Your task to perform on an android device: turn off data saver in the chrome app Image 0: 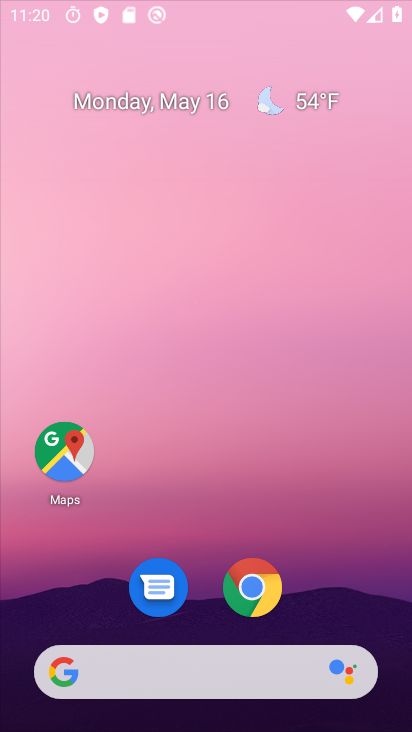
Step 0: click (275, 115)
Your task to perform on an android device: turn off data saver in the chrome app Image 1: 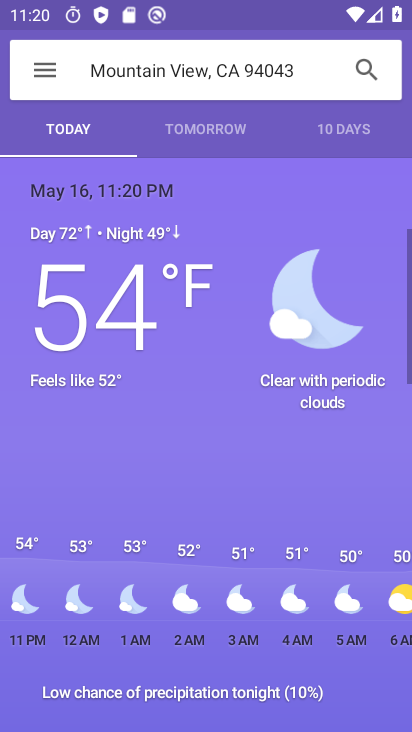
Step 1: drag from (215, 626) to (322, 217)
Your task to perform on an android device: turn off data saver in the chrome app Image 2: 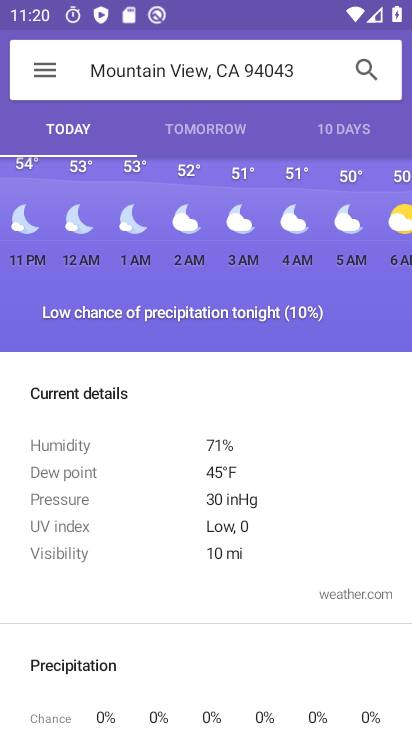
Step 2: press home button
Your task to perform on an android device: turn off data saver in the chrome app Image 3: 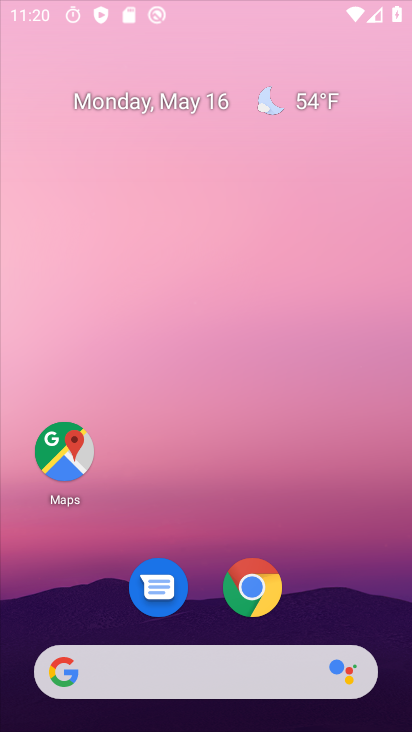
Step 3: drag from (197, 638) to (206, 161)
Your task to perform on an android device: turn off data saver in the chrome app Image 4: 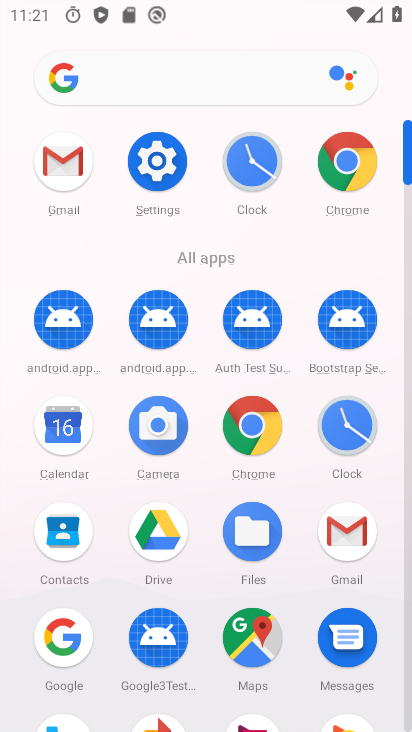
Step 4: click (352, 160)
Your task to perform on an android device: turn off data saver in the chrome app Image 5: 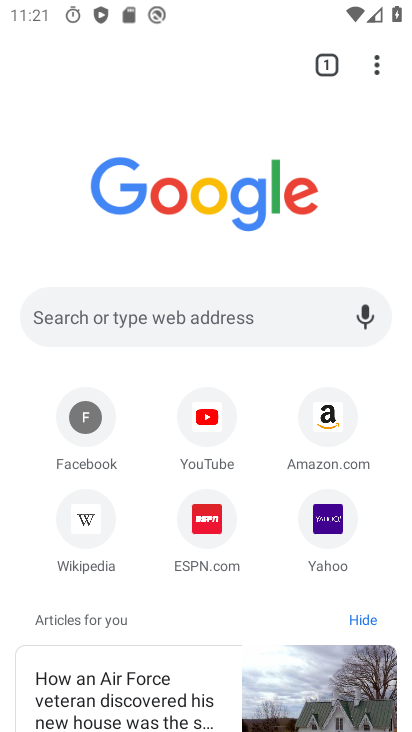
Step 5: drag from (267, 560) to (241, 183)
Your task to perform on an android device: turn off data saver in the chrome app Image 6: 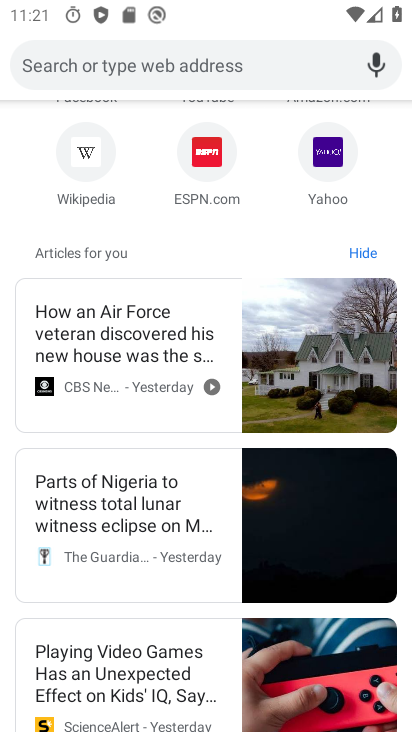
Step 6: drag from (174, 646) to (169, 250)
Your task to perform on an android device: turn off data saver in the chrome app Image 7: 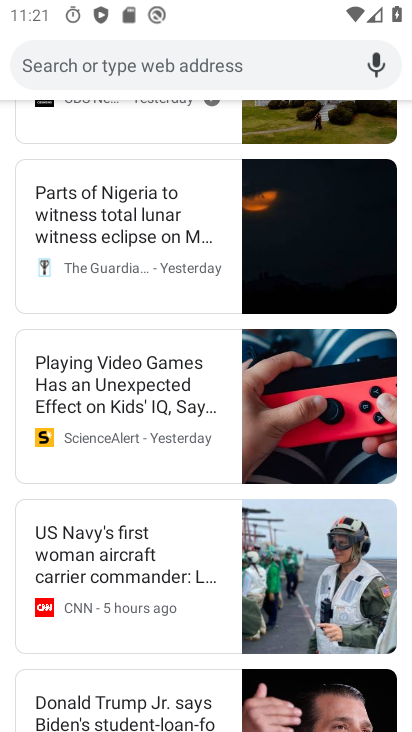
Step 7: drag from (278, 172) to (402, 96)
Your task to perform on an android device: turn off data saver in the chrome app Image 8: 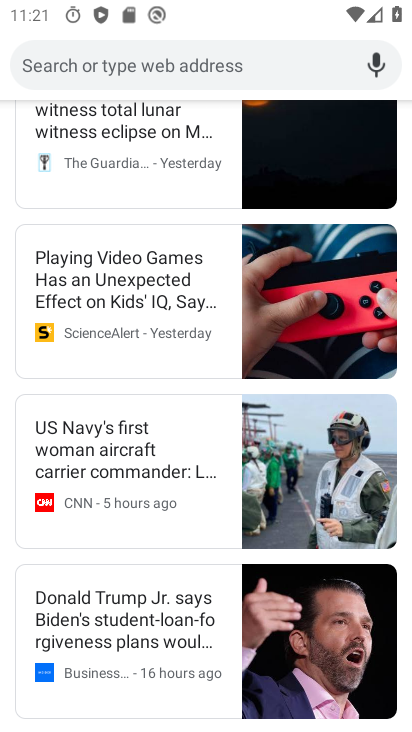
Step 8: drag from (295, 168) to (405, 509)
Your task to perform on an android device: turn off data saver in the chrome app Image 9: 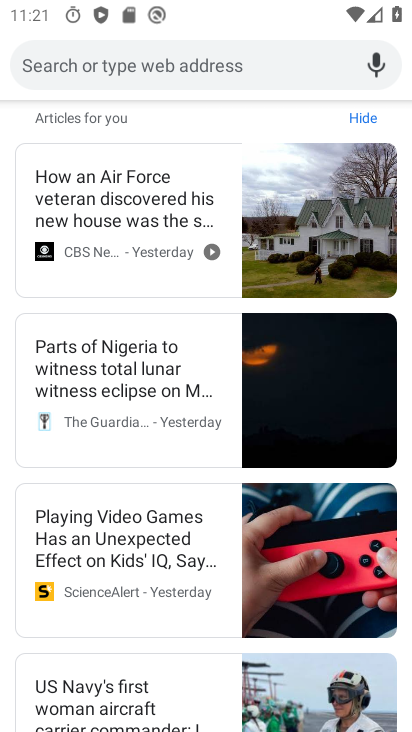
Step 9: drag from (278, 154) to (380, 700)
Your task to perform on an android device: turn off data saver in the chrome app Image 10: 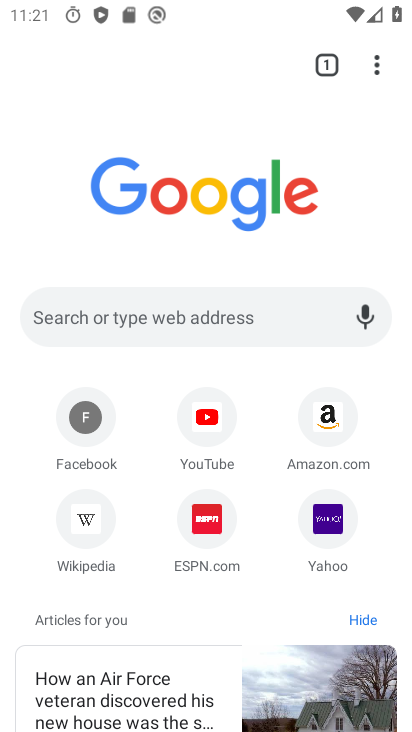
Step 10: click (378, 63)
Your task to perform on an android device: turn off data saver in the chrome app Image 11: 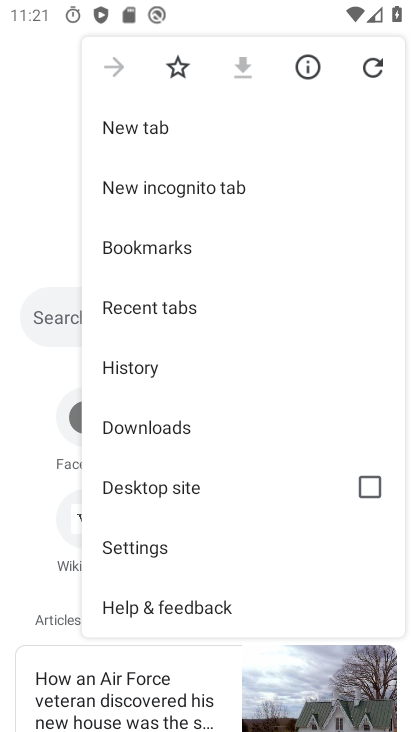
Step 11: click (143, 551)
Your task to perform on an android device: turn off data saver in the chrome app Image 12: 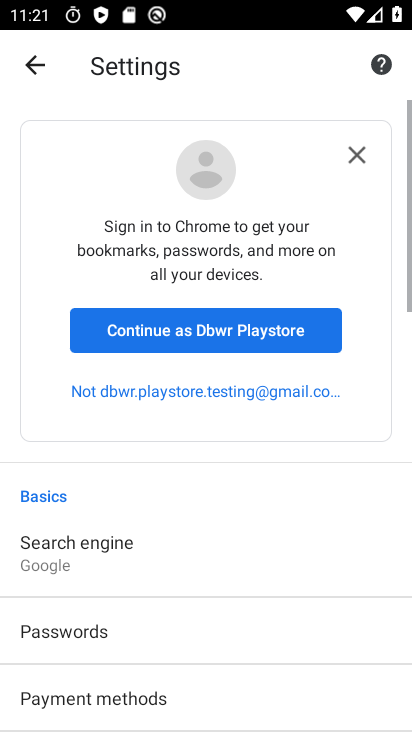
Step 12: drag from (205, 639) to (232, 2)
Your task to perform on an android device: turn off data saver in the chrome app Image 13: 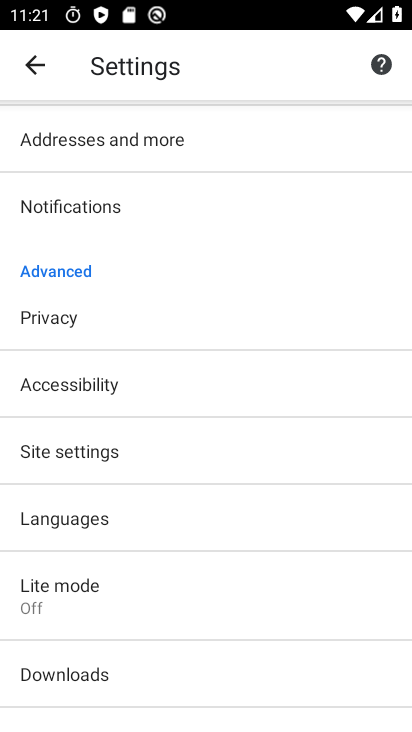
Step 13: drag from (183, 664) to (233, 208)
Your task to perform on an android device: turn off data saver in the chrome app Image 14: 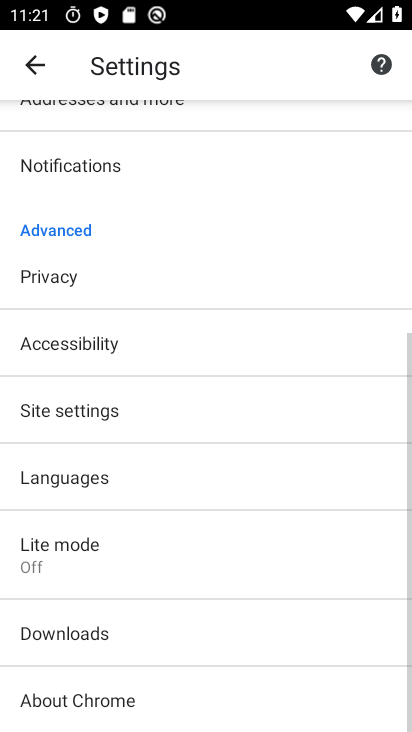
Step 14: click (100, 563)
Your task to perform on an android device: turn off data saver in the chrome app Image 15: 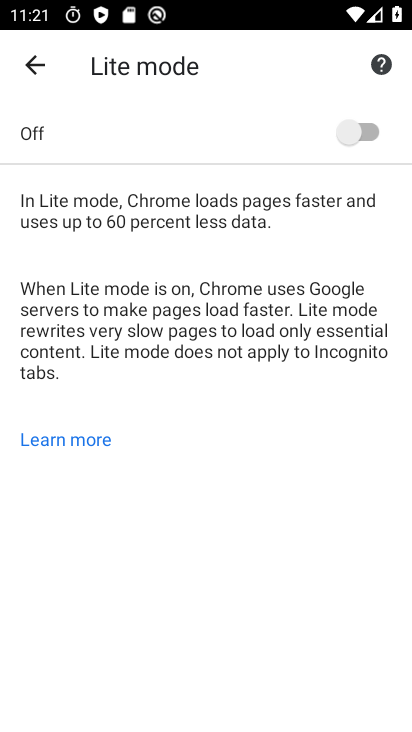
Step 15: click (316, 133)
Your task to perform on an android device: turn off data saver in the chrome app Image 16: 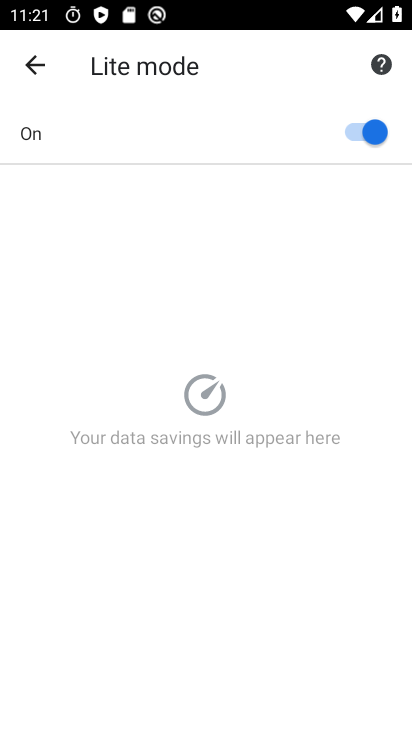
Step 16: task complete